Your task to perform on an android device: turn on data saver in the chrome app Image 0: 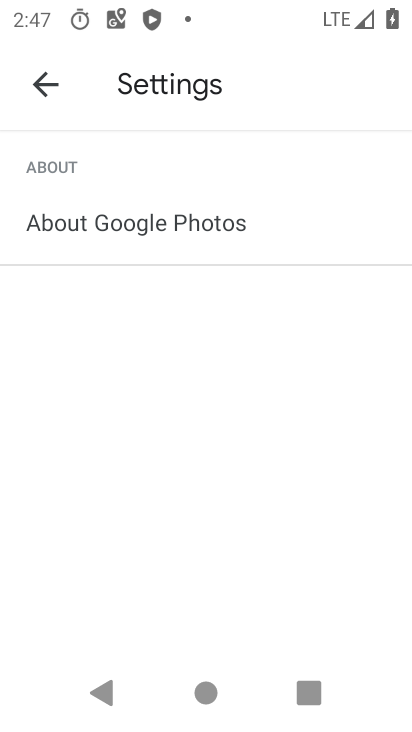
Step 0: press home button
Your task to perform on an android device: turn on data saver in the chrome app Image 1: 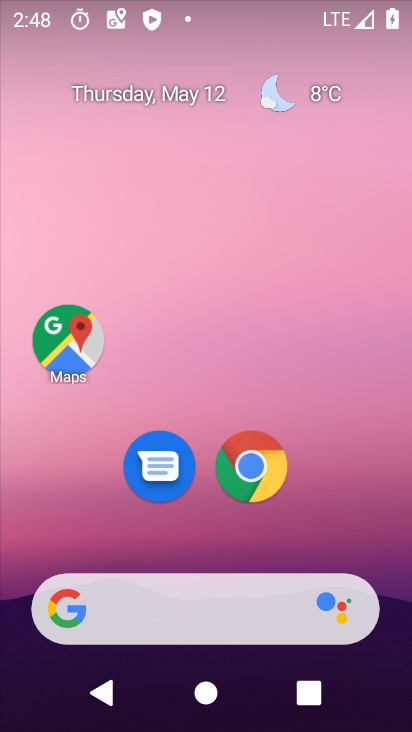
Step 1: drag from (291, 519) to (146, 155)
Your task to perform on an android device: turn on data saver in the chrome app Image 2: 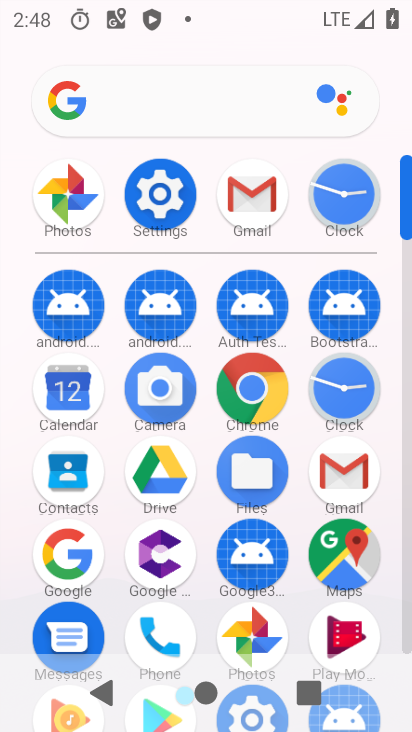
Step 2: click (268, 377)
Your task to perform on an android device: turn on data saver in the chrome app Image 3: 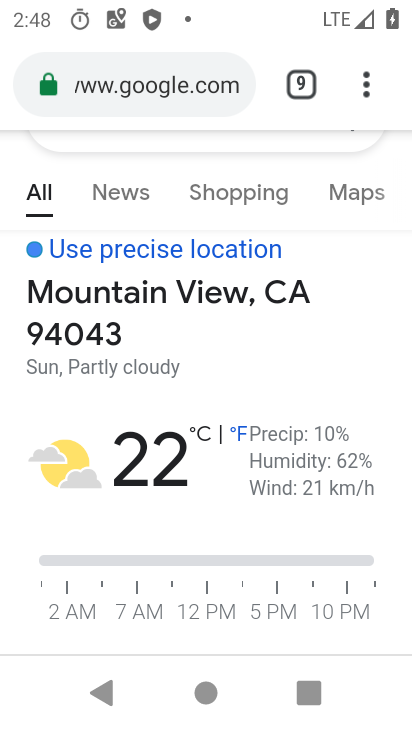
Step 3: click (366, 85)
Your task to perform on an android device: turn on data saver in the chrome app Image 4: 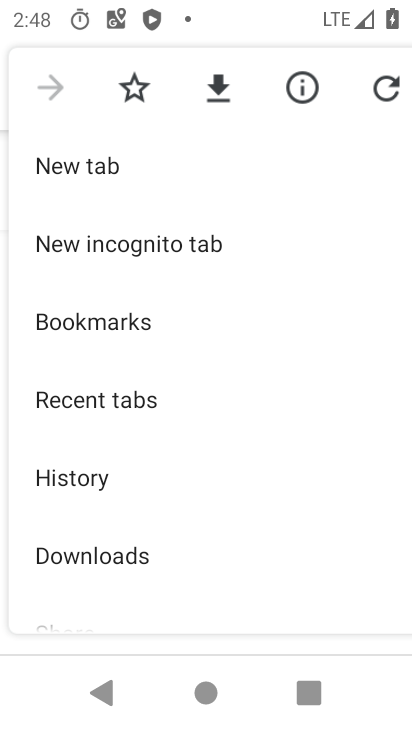
Step 4: drag from (168, 562) to (206, 124)
Your task to perform on an android device: turn on data saver in the chrome app Image 5: 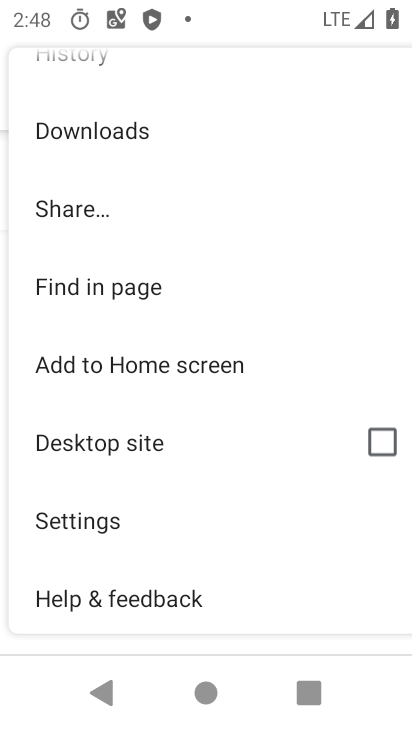
Step 5: click (88, 513)
Your task to perform on an android device: turn on data saver in the chrome app Image 6: 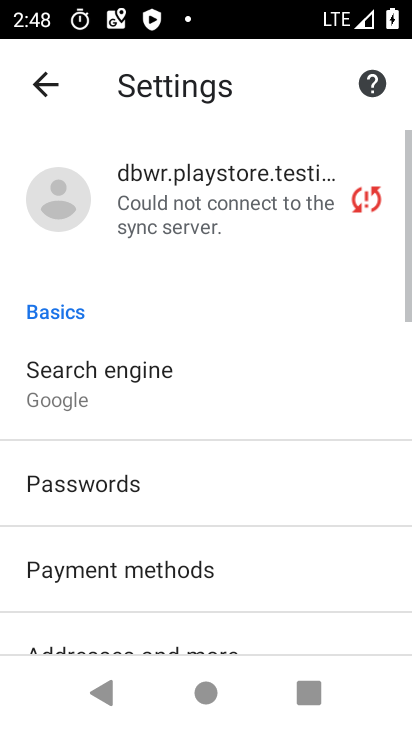
Step 6: drag from (131, 541) to (152, 150)
Your task to perform on an android device: turn on data saver in the chrome app Image 7: 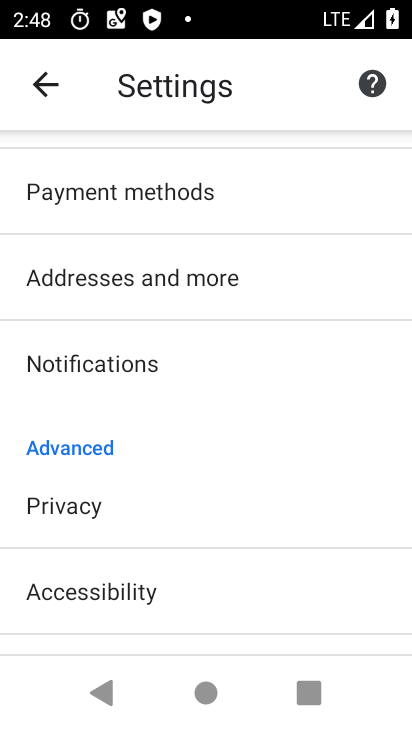
Step 7: drag from (107, 588) to (159, 210)
Your task to perform on an android device: turn on data saver in the chrome app Image 8: 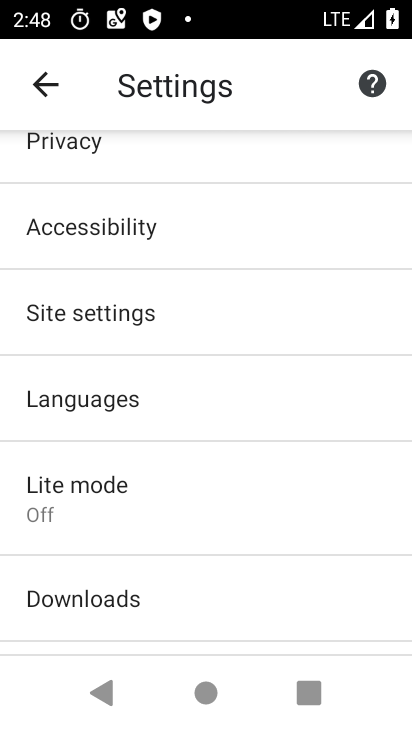
Step 8: click (68, 481)
Your task to perform on an android device: turn on data saver in the chrome app Image 9: 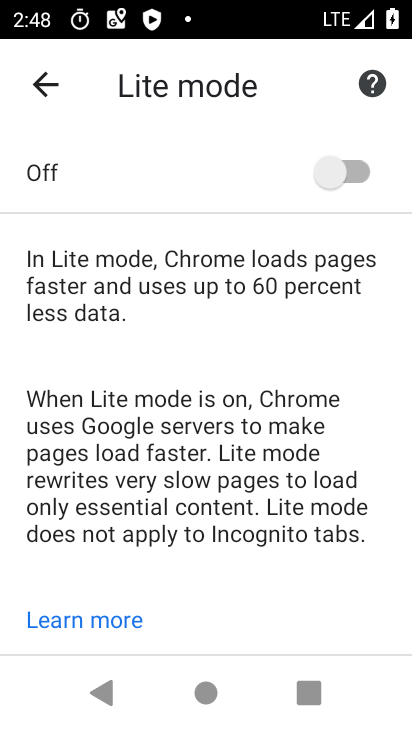
Step 9: click (354, 178)
Your task to perform on an android device: turn on data saver in the chrome app Image 10: 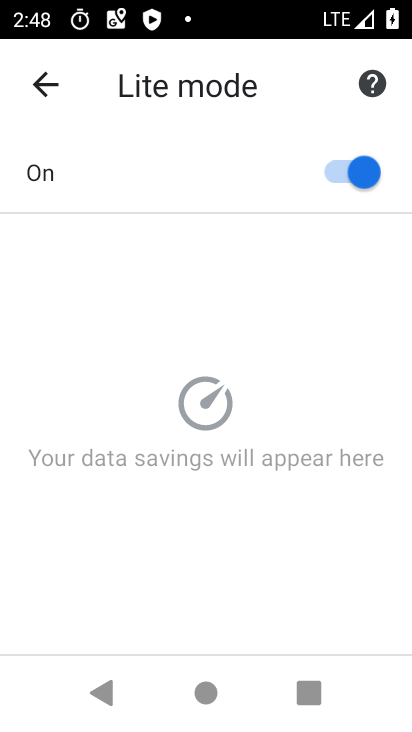
Step 10: task complete